Your task to perform on an android device: Go to wifi settings Image 0: 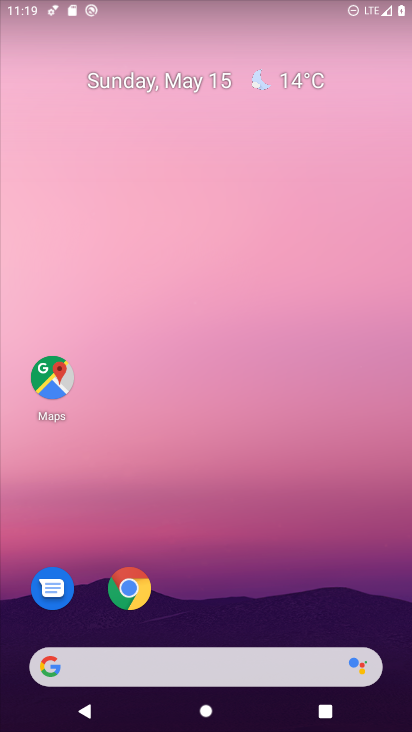
Step 0: drag from (221, 638) to (305, 9)
Your task to perform on an android device: Go to wifi settings Image 1: 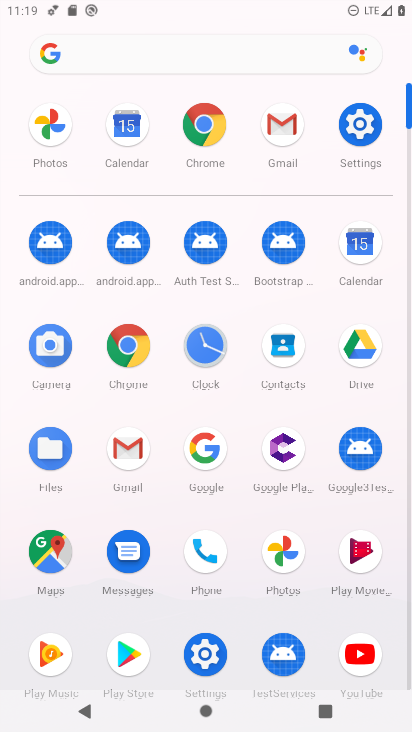
Step 1: click (358, 138)
Your task to perform on an android device: Go to wifi settings Image 2: 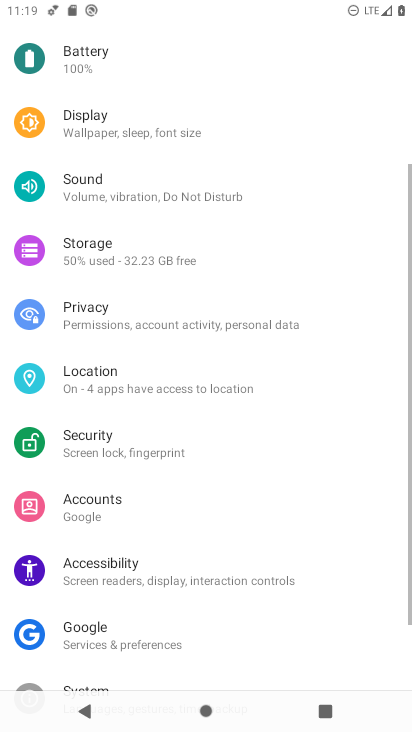
Step 2: drag from (185, 127) to (166, 382)
Your task to perform on an android device: Go to wifi settings Image 3: 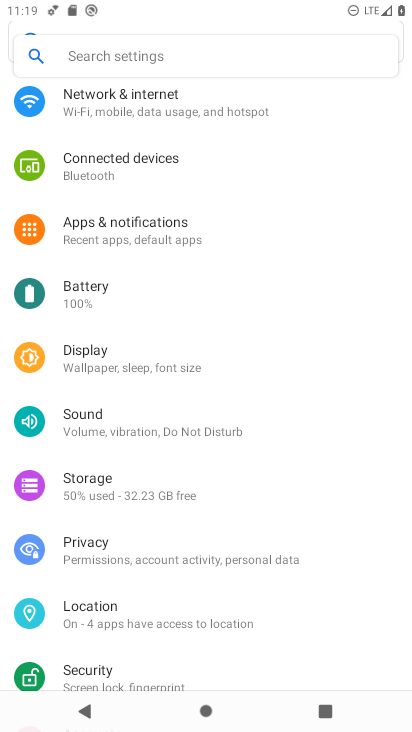
Step 3: drag from (155, 437) to (163, 571)
Your task to perform on an android device: Go to wifi settings Image 4: 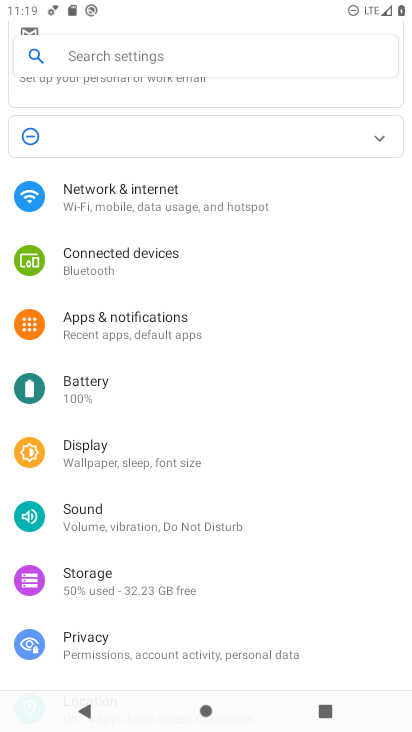
Step 4: click (146, 214)
Your task to perform on an android device: Go to wifi settings Image 5: 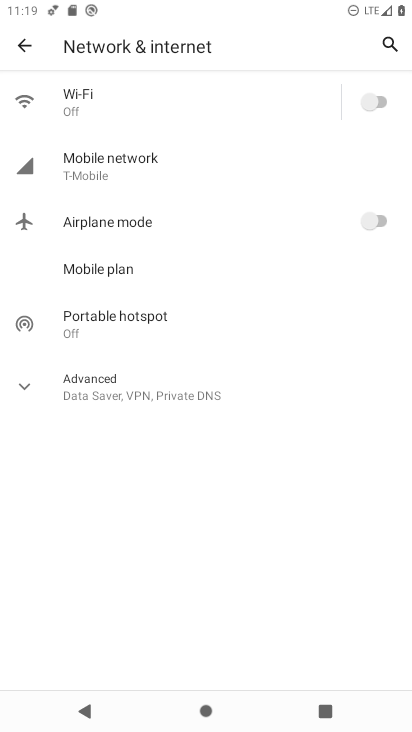
Step 5: click (98, 113)
Your task to perform on an android device: Go to wifi settings Image 6: 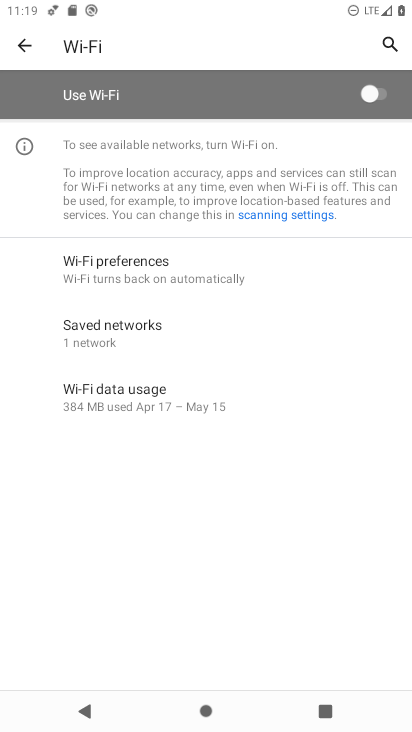
Step 6: task complete